Your task to perform on an android device: check the backup settings in the google photos Image 0: 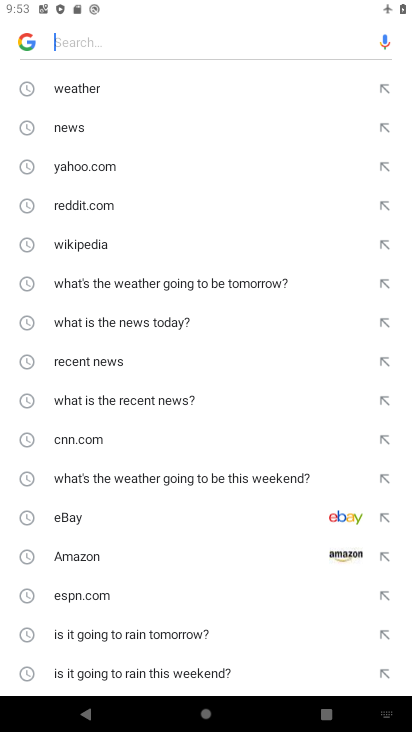
Step 0: press back button
Your task to perform on an android device: check the backup settings in the google photos Image 1: 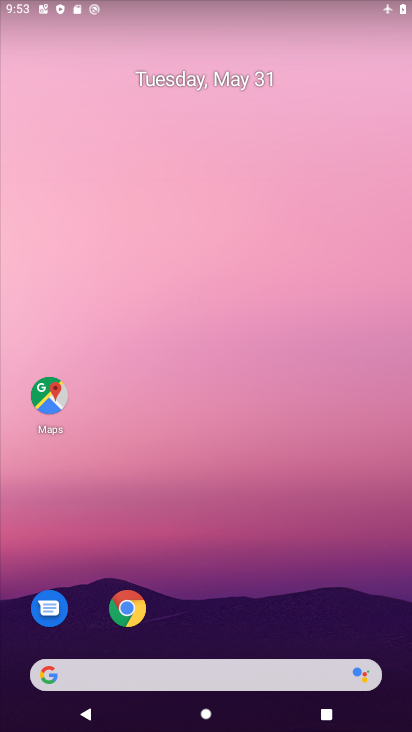
Step 1: drag from (190, 676) to (155, 78)
Your task to perform on an android device: check the backup settings in the google photos Image 2: 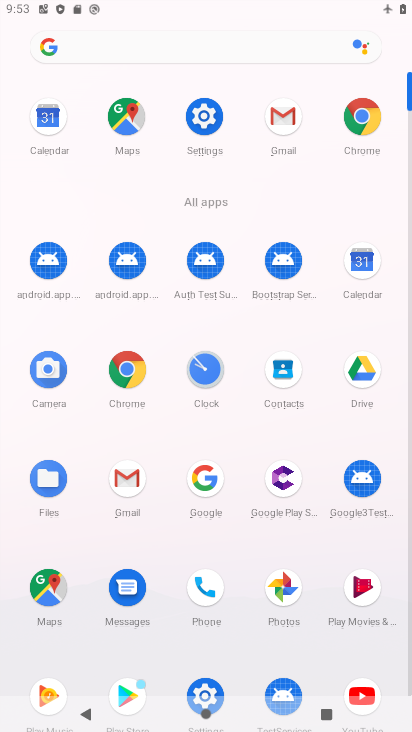
Step 2: click (283, 587)
Your task to perform on an android device: check the backup settings in the google photos Image 3: 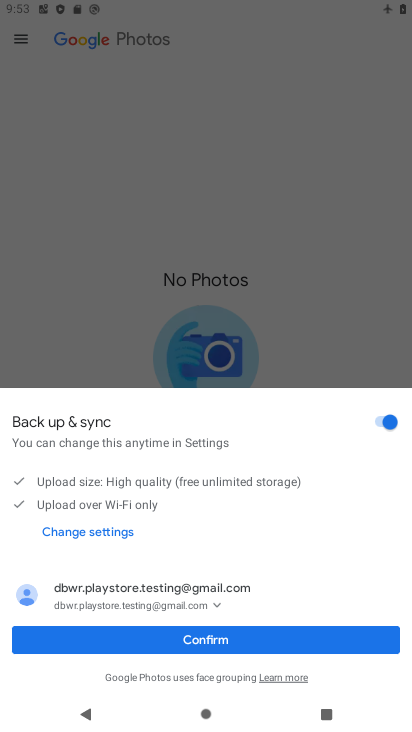
Step 3: click (235, 630)
Your task to perform on an android device: check the backup settings in the google photos Image 4: 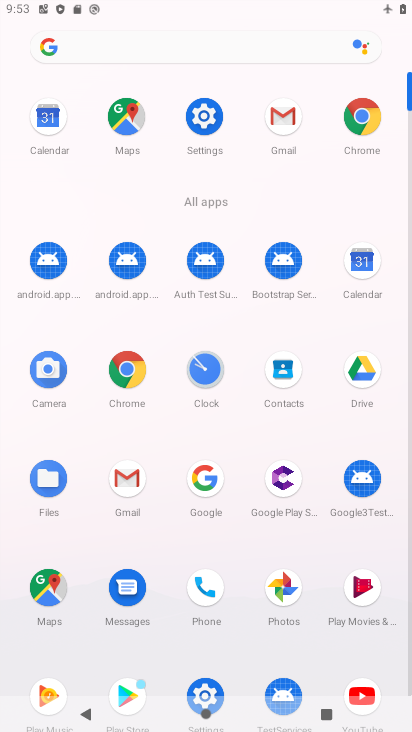
Step 4: click (21, 36)
Your task to perform on an android device: check the backup settings in the google photos Image 5: 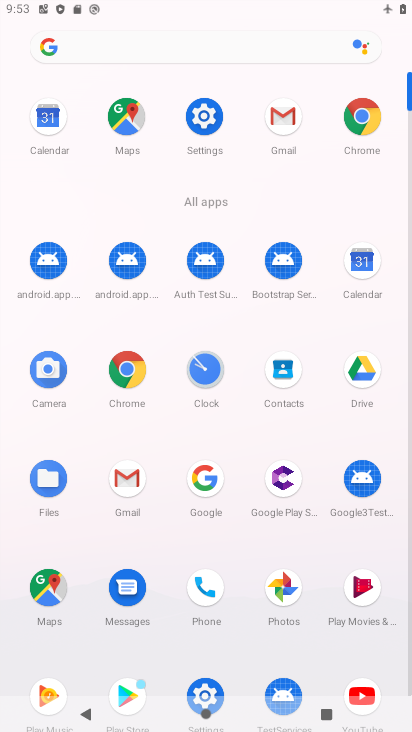
Step 5: click (280, 592)
Your task to perform on an android device: check the backup settings in the google photos Image 6: 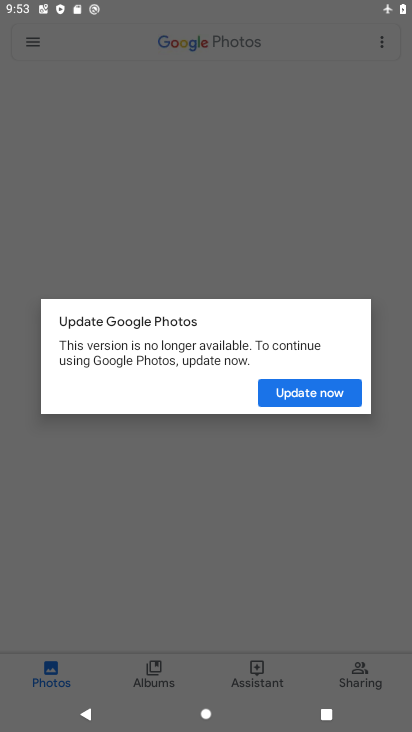
Step 6: click (286, 401)
Your task to perform on an android device: check the backup settings in the google photos Image 7: 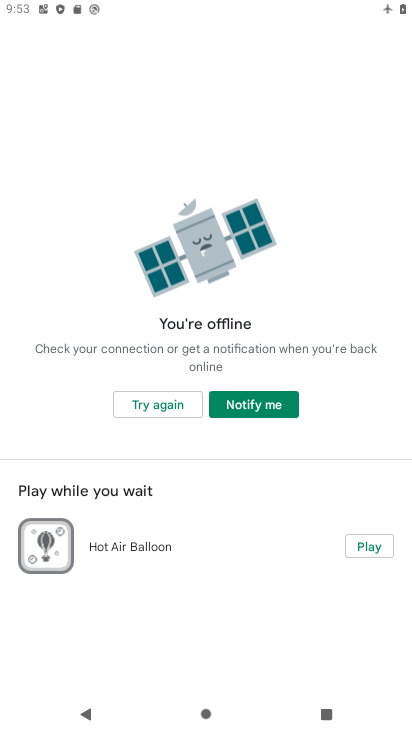
Step 7: press back button
Your task to perform on an android device: check the backup settings in the google photos Image 8: 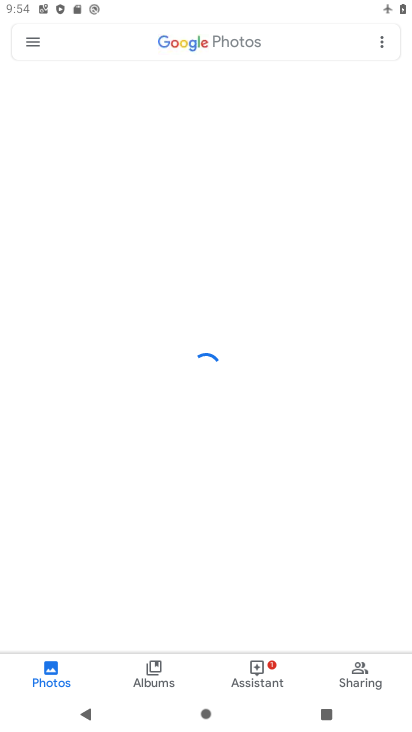
Step 8: click (35, 46)
Your task to perform on an android device: check the backup settings in the google photos Image 9: 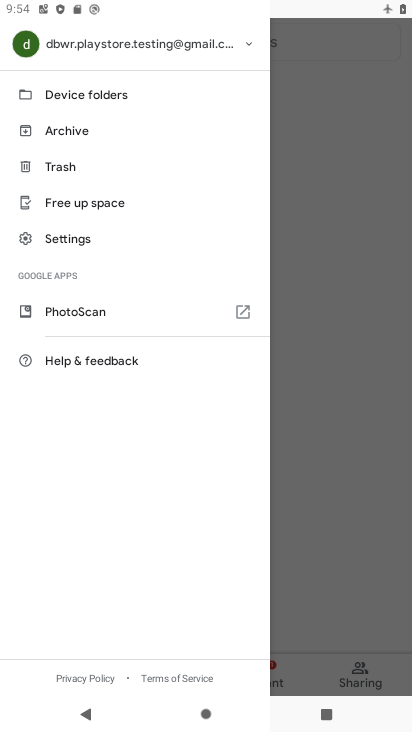
Step 9: click (71, 232)
Your task to perform on an android device: check the backup settings in the google photos Image 10: 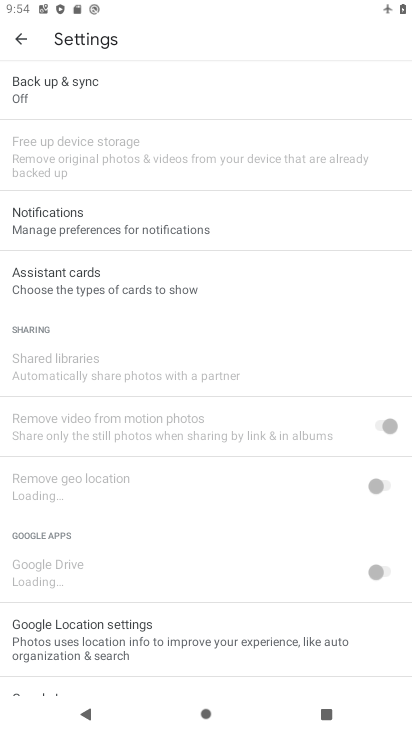
Step 10: click (76, 93)
Your task to perform on an android device: check the backup settings in the google photos Image 11: 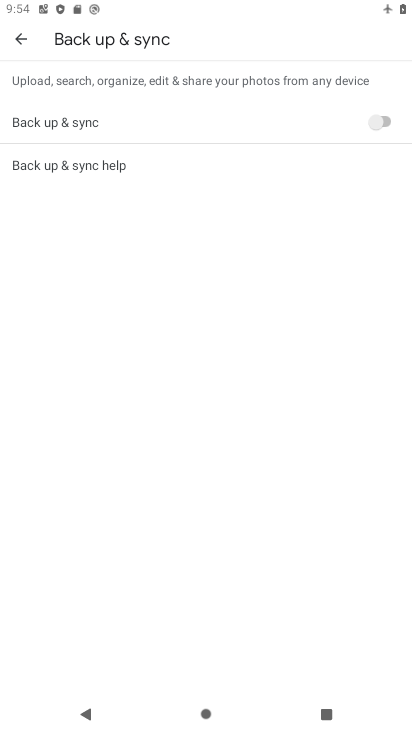
Step 11: click (64, 115)
Your task to perform on an android device: check the backup settings in the google photos Image 12: 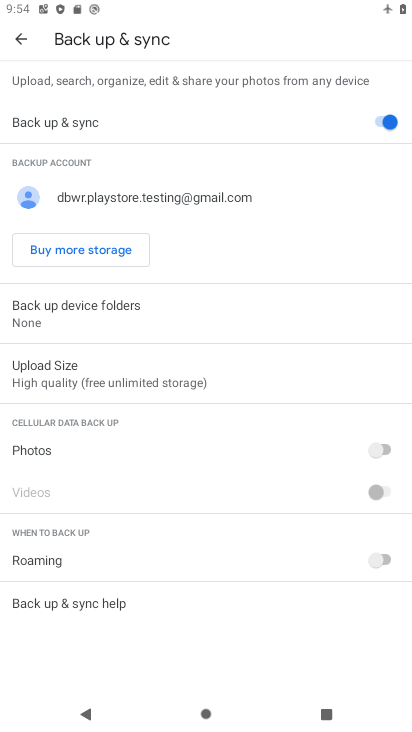
Step 12: task complete